Your task to perform on an android device: Go to Android settings Image 0: 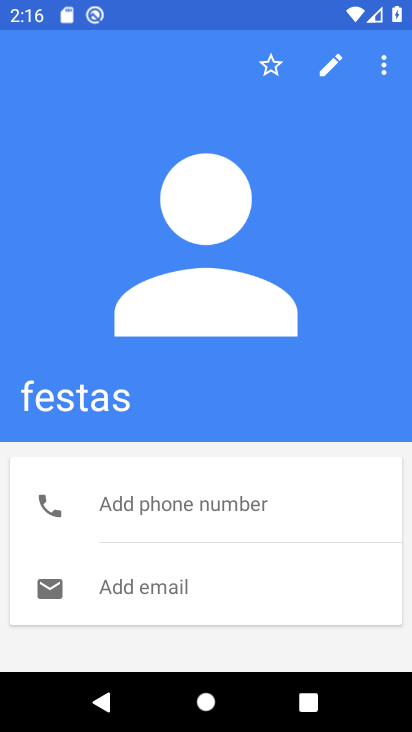
Step 0: press home button
Your task to perform on an android device: Go to Android settings Image 1: 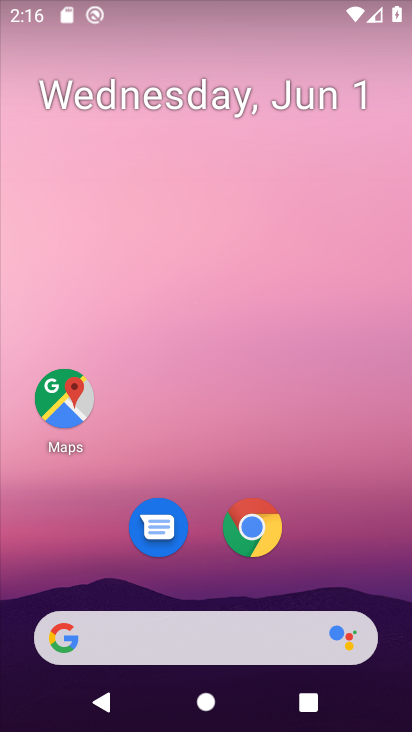
Step 1: drag from (202, 552) to (265, 191)
Your task to perform on an android device: Go to Android settings Image 2: 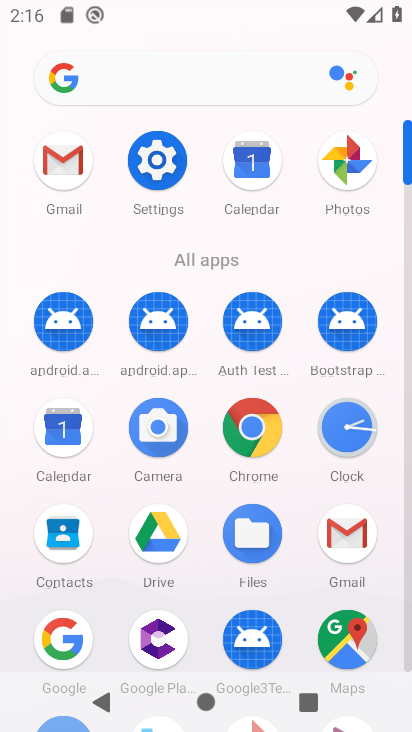
Step 2: click (152, 162)
Your task to perform on an android device: Go to Android settings Image 3: 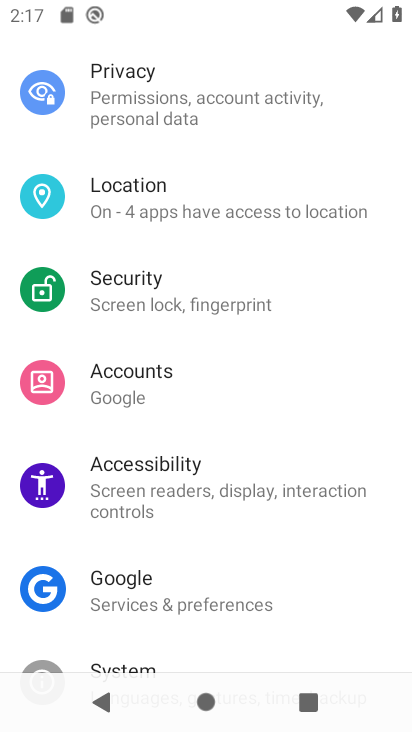
Step 3: drag from (172, 517) to (202, 177)
Your task to perform on an android device: Go to Android settings Image 4: 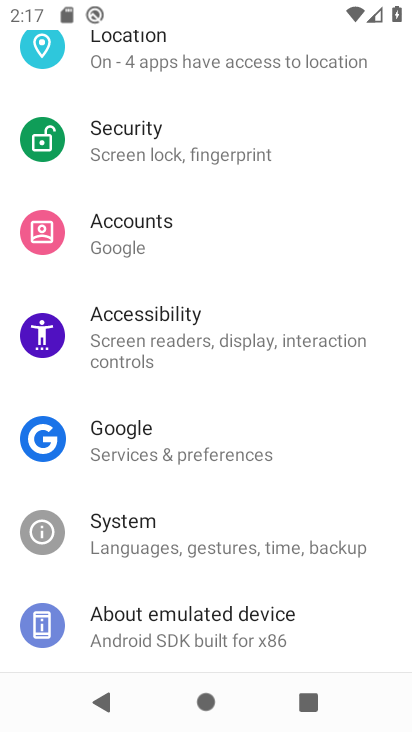
Step 4: click (162, 626)
Your task to perform on an android device: Go to Android settings Image 5: 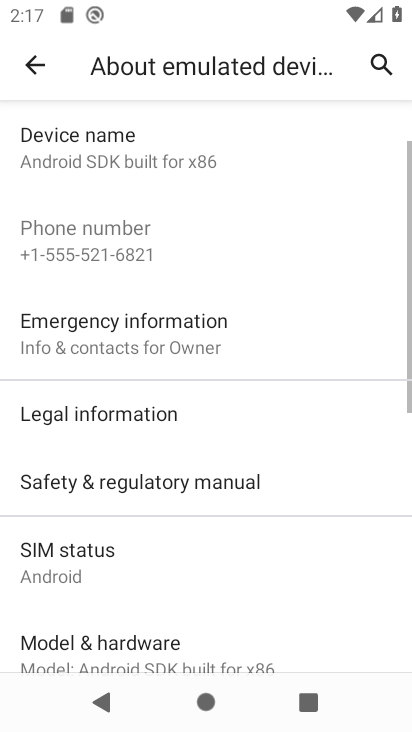
Step 5: drag from (205, 452) to (237, 187)
Your task to perform on an android device: Go to Android settings Image 6: 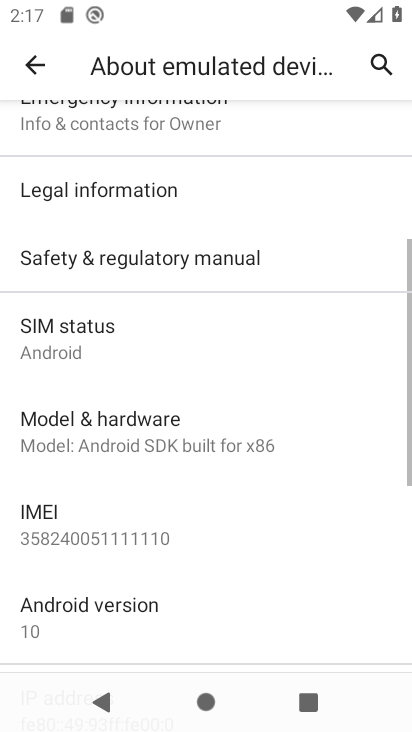
Step 6: click (126, 617)
Your task to perform on an android device: Go to Android settings Image 7: 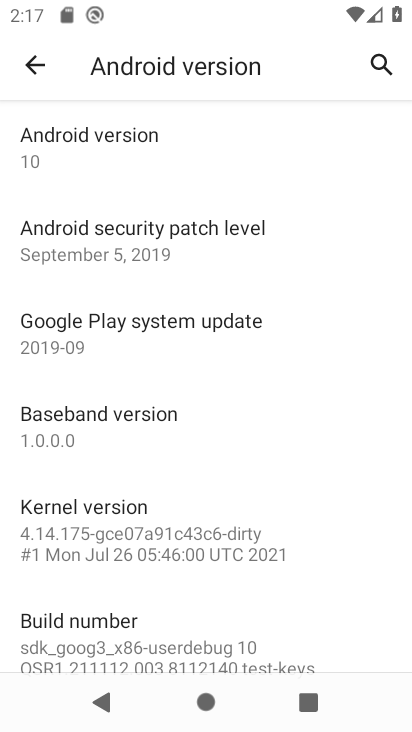
Step 7: task complete